Your task to perform on an android device: When is my next appointment? Image 0: 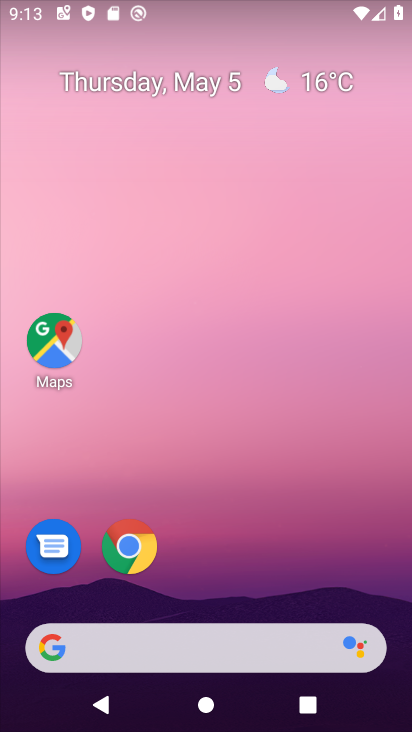
Step 0: drag from (220, 573) to (335, 182)
Your task to perform on an android device: When is my next appointment? Image 1: 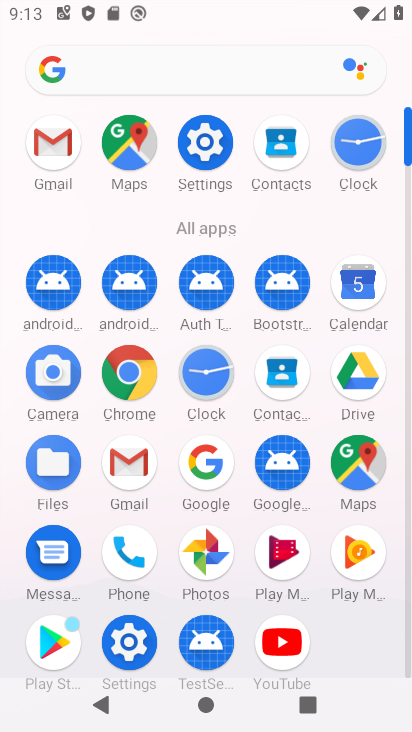
Step 1: click (359, 289)
Your task to perform on an android device: When is my next appointment? Image 2: 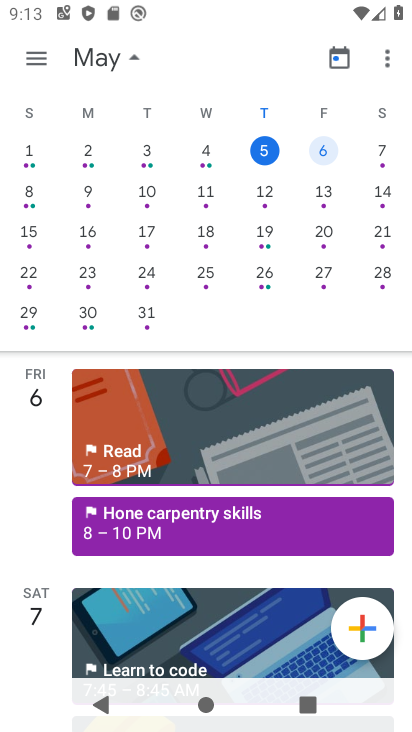
Step 2: click (263, 151)
Your task to perform on an android device: When is my next appointment? Image 3: 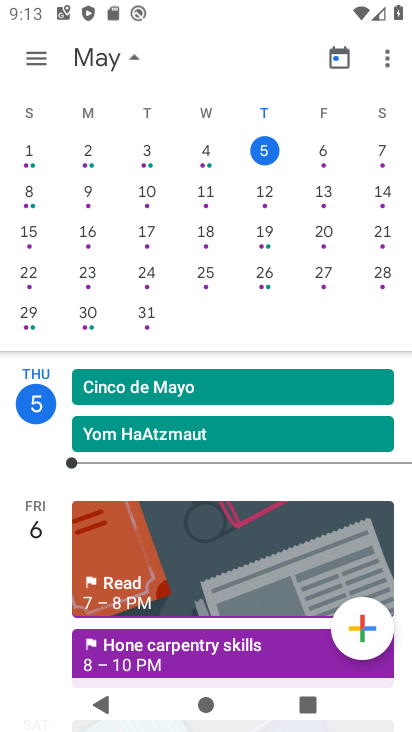
Step 3: task complete